Your task to perform on an android device: clear all cookies in the chrome app Image 0: 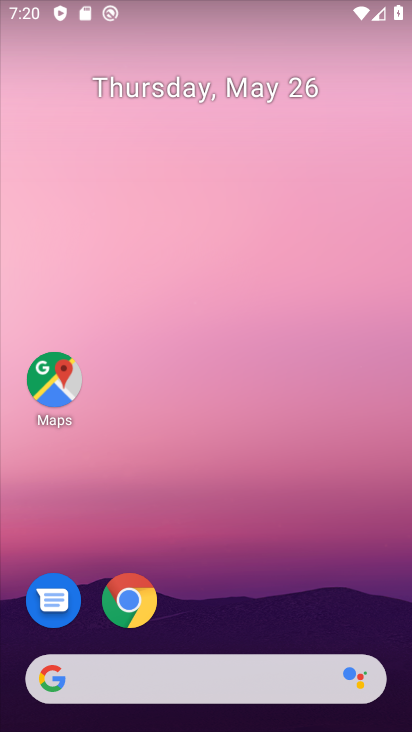
Step 0: press home button
Your task to perform on an android device: clear all cookies in the chrome app Image 1: 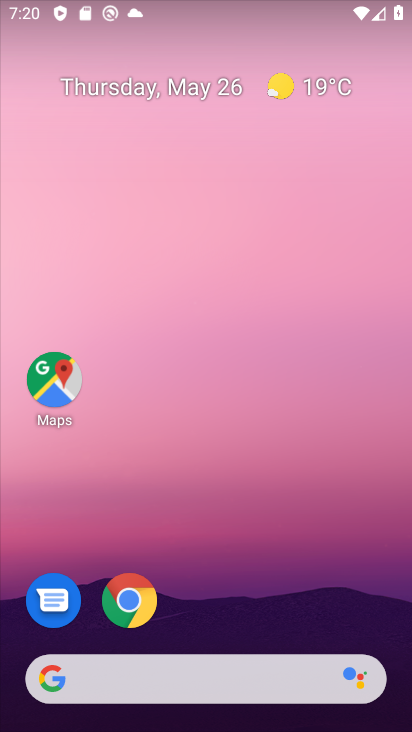
Step 1: click (129, 605)
Your task to perform on an android device: clear all cookies in the chrome app Image 2: 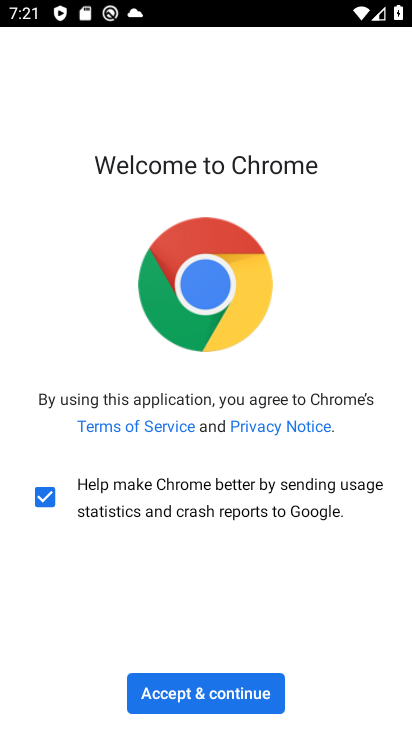
Step 2: click (184, 693)
Your task to perform on an android device: clear all cookies in the chrome app Image 3: 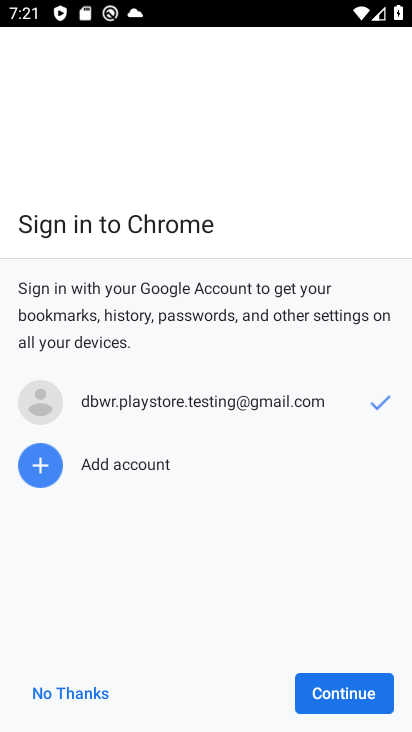
Step 3: click (345, 694)
Your task to perform on an android device: clear all cookies in the chrome app Image 4: 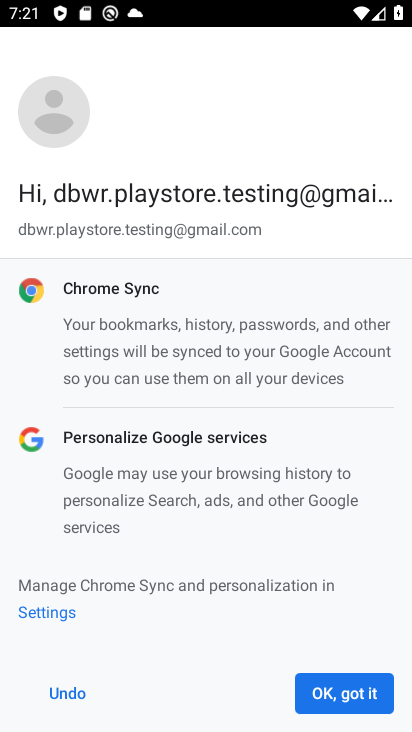
Step 4: click (345, 694)
Your task to perform on an android device: clear all cookies in the chrome app Image 5: 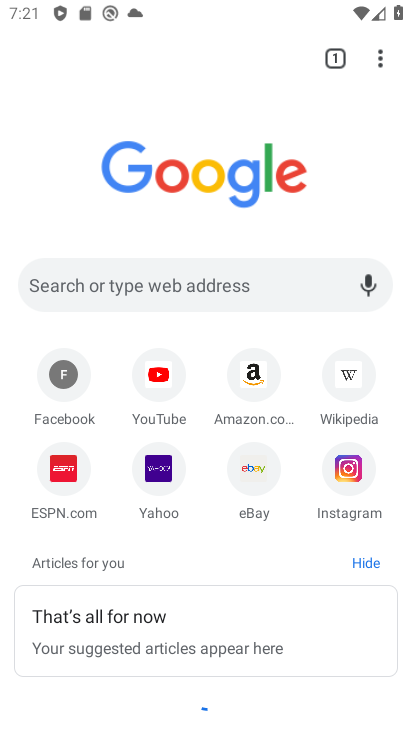
Step 5: drag from (384, 58) to (177, 492)
Your task to perform on an android device: clear all cookies in the chrome app Image 6: 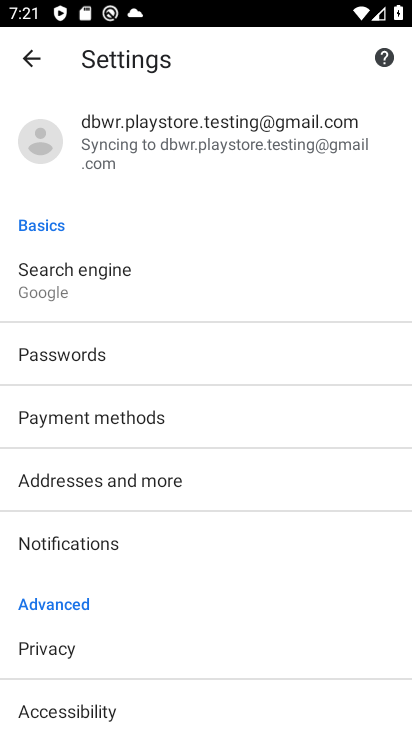
Step 6: click (37, 646)
Your task to perform on an android device: clear all cookies in the chrome app Image 7: 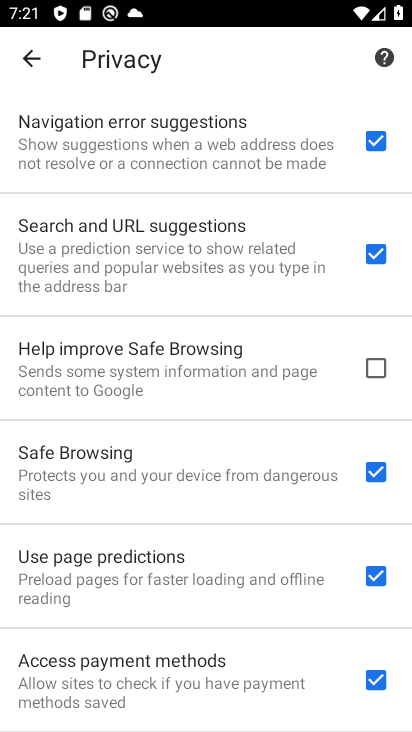
Step 7: drag from (263, 606) to (273, 176)
Your task to perform on an android device: clear all cookies in the chrome app Image 8: 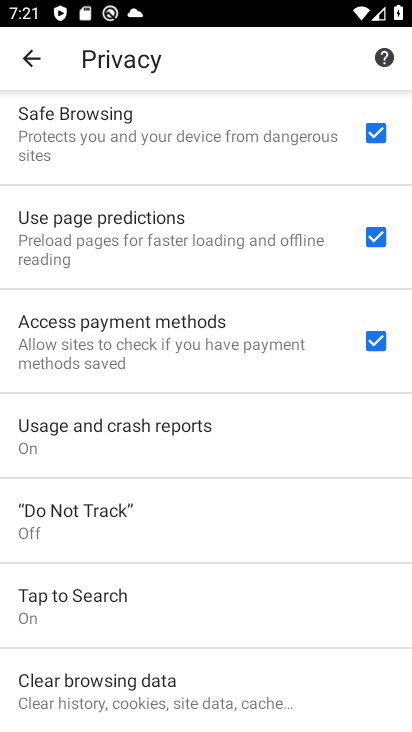
Step 8: click (92, 686)
Your task to perform on an android device: clear all cookies in the chrome app Image 9: 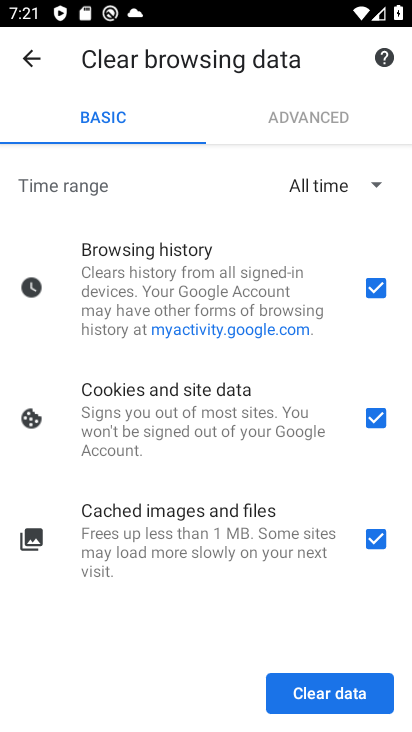
Step 9: click (370, 287)
Your task to perform on an android device: clear all cookies in the chrome app Image 10: 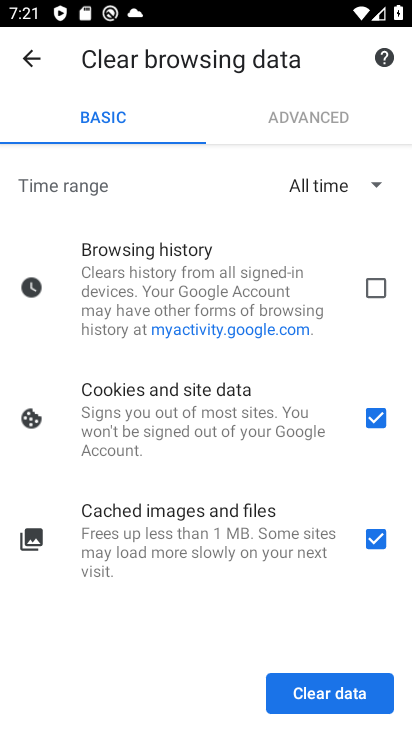
Step 10: click (372, 537)
Your task to perform on an android device: clear all cookies in the chrome app Image 11: 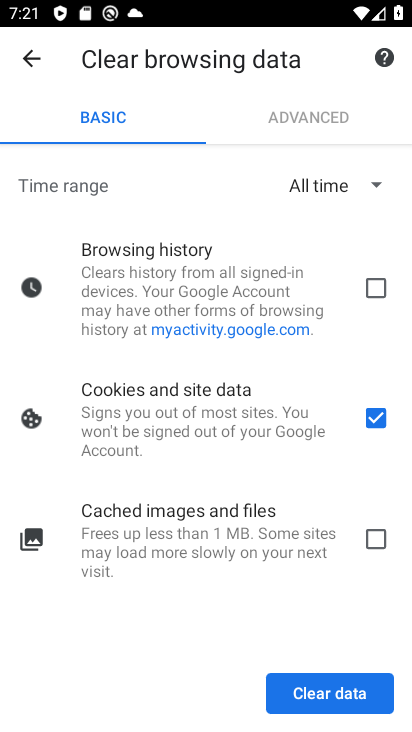
Step 11: click (321, 698)
Your task to perform on an android device: clear all cookies in the chrome app Image 12: 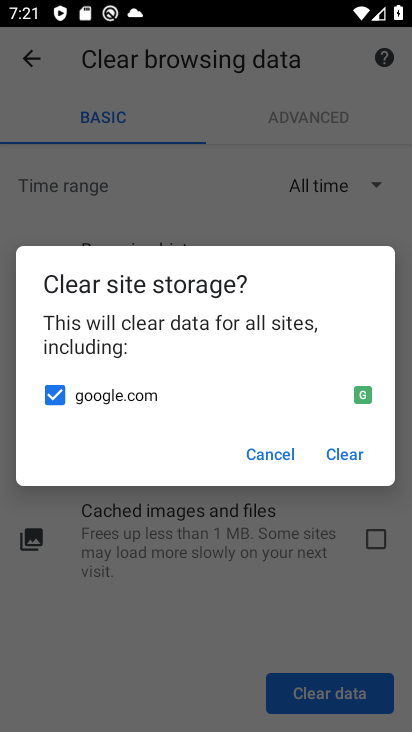
Step 12: click (344, 450)
Your task to perform on an android device: clear all cookies in the chrome app Image 13: 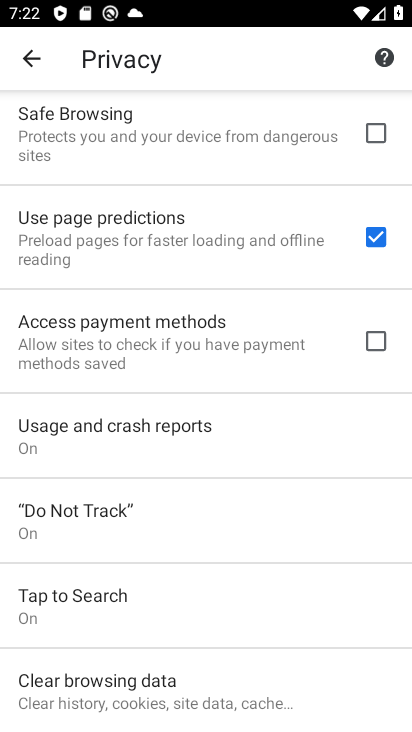
Step 13: task complete